Your task to perform on an android device: Open Reddit.com Image 0: 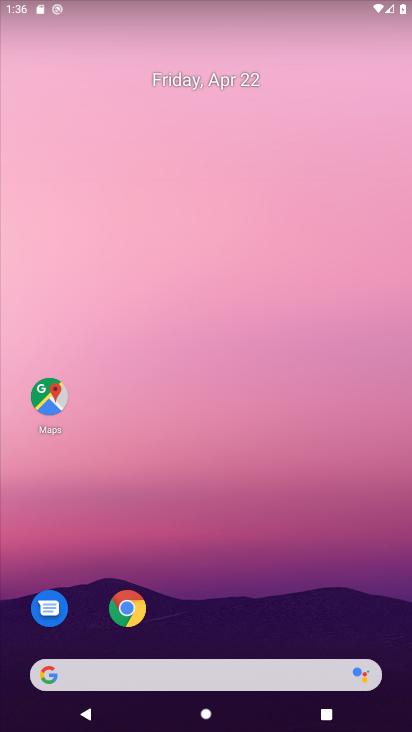
Step 0: drag from (269, 561) to (163, 61)
Your task to perform on an android device: Open Reddit.com Image 1: 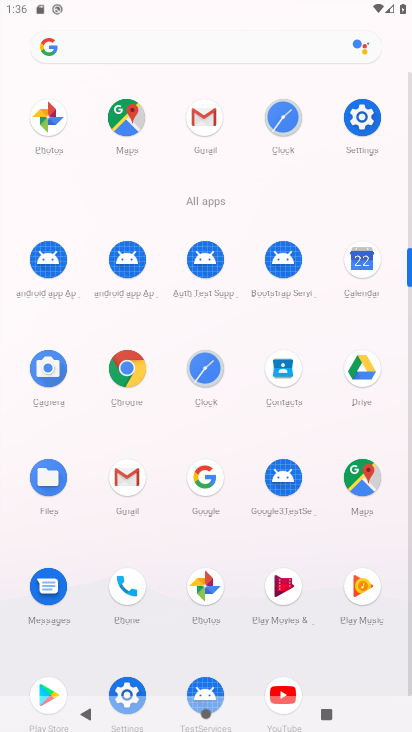
Step 1: click (127, 368)
Your task to perform on an android device: Open Reddit.com Image 2: 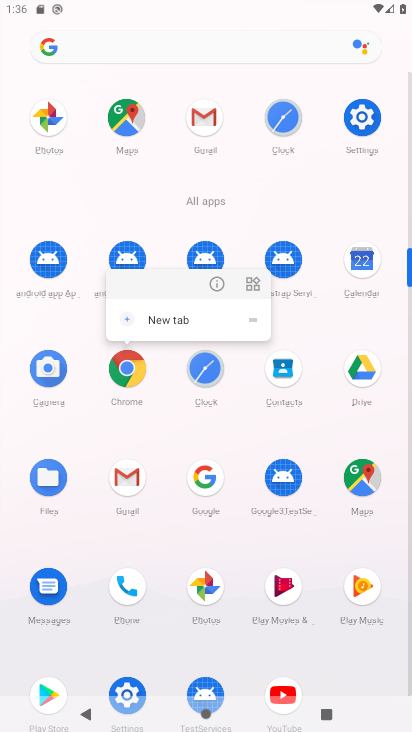
Step 2: click (126, 368)
Your task to perform on an android device: Open Reddit.com Image 3: 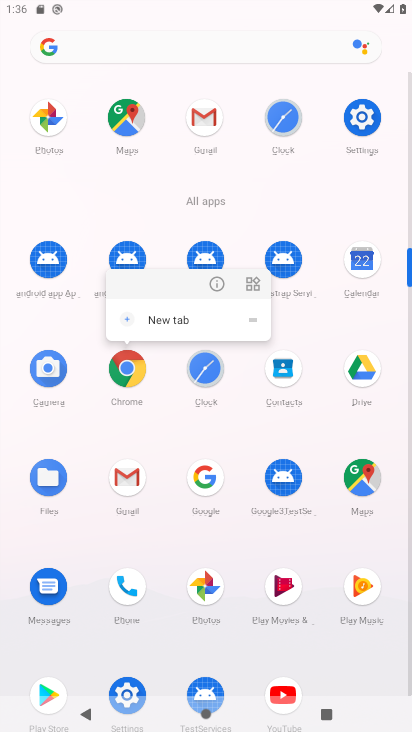
Step 3: click (127, 367)
Your task to perform on an android device: Open Reddit.com Image 4: 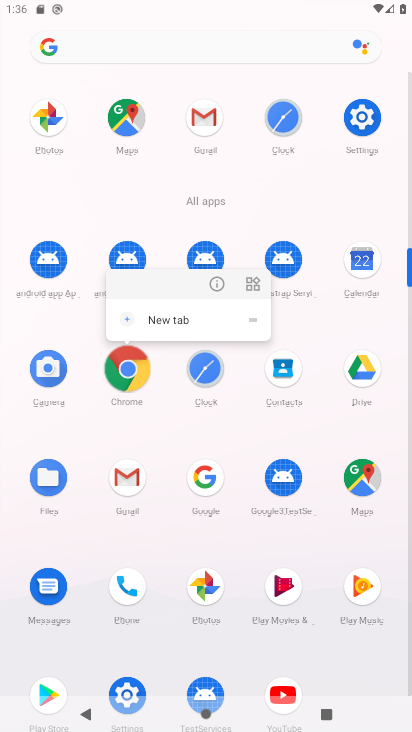
Step 4: click (127, 367)
Your task to perform on an android device: Open Reddit.com Image 5: 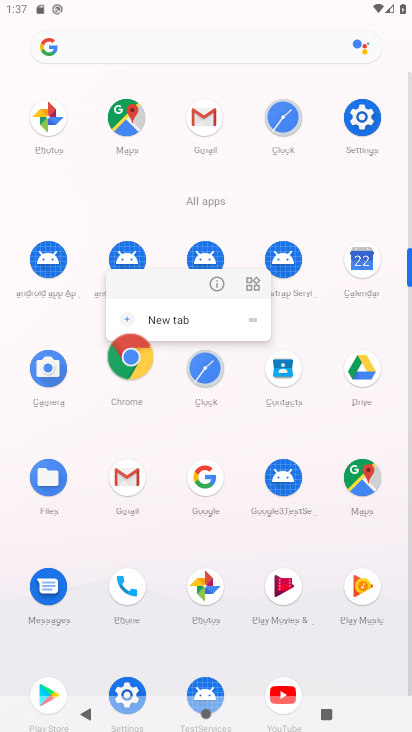
Step 5: click (132, 359)
Your task to perform on an android device: Open Reddit.com Image 6: 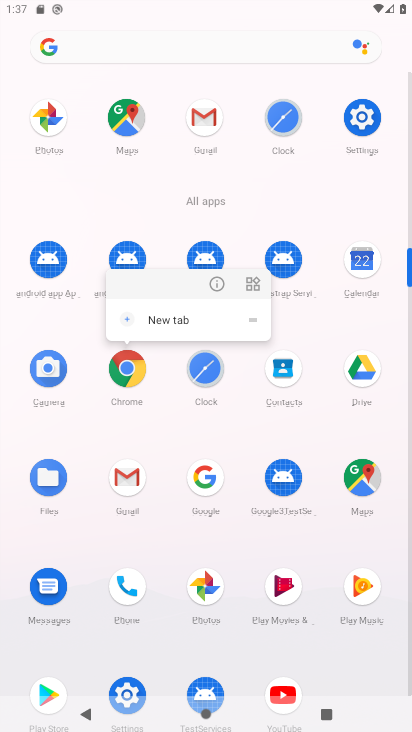
Step 6: click (128, 356)
Your task to perform on an android device: Open Reddit.com Image 7: 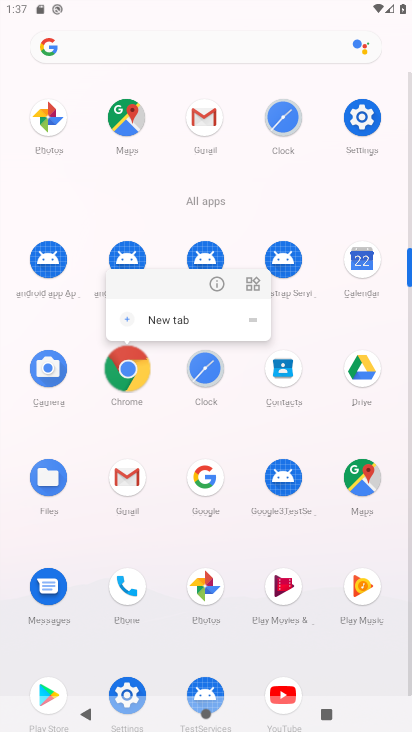
Step 7: click (129, 355)
Your task to perform on an android device: Open Reddit.com Image 8: 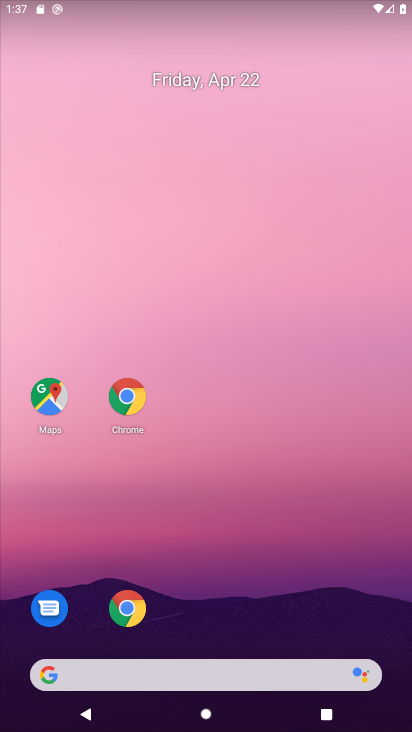
Step 8: drag from (240, 583) to (182, 11)
Your task to perform on an android device: Open Reddit.com Image 9: 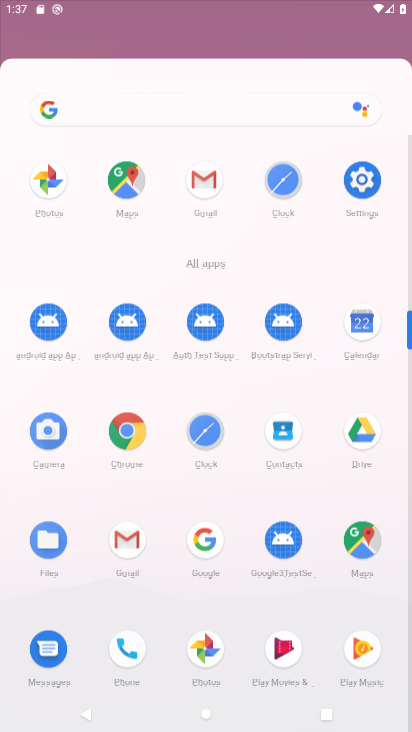
Step 9: drag from (268, 688) to (116, 64)
Your task to perform on an android device: Open Reddit.com Image 10: 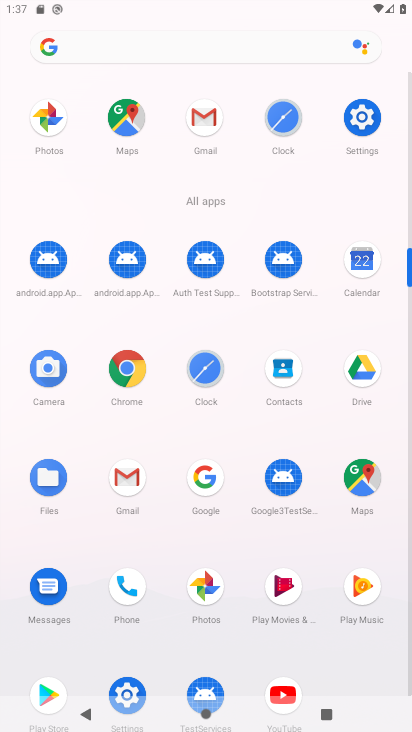
Step 10: click (117, 374)
Your task to perform on an android device: Open Reddit.com Image 11: 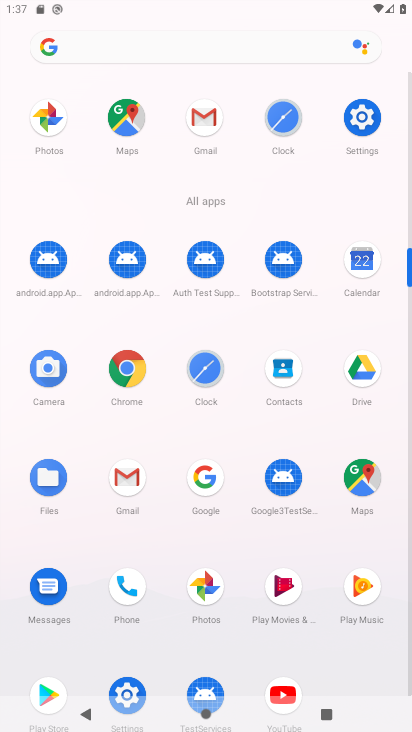
Step 11: click (117, 373)
Your task to perform on an android device: Open Reddit.com Image 12: 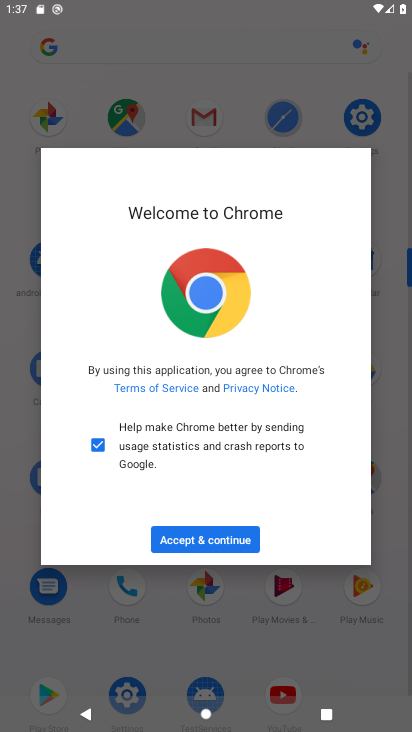
Step 12: click (208, 535)
Your task to perform on an android device: Open Reddit.com Image 13: 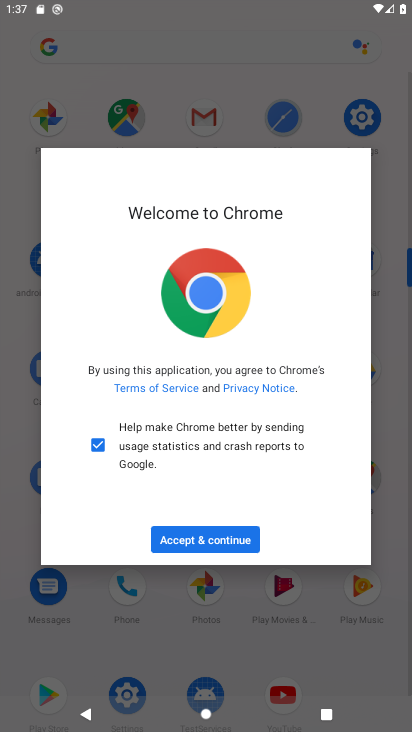
Step 13: click (209, 533)
Your task to perform on an android device: Open Reddit.com Image 14: 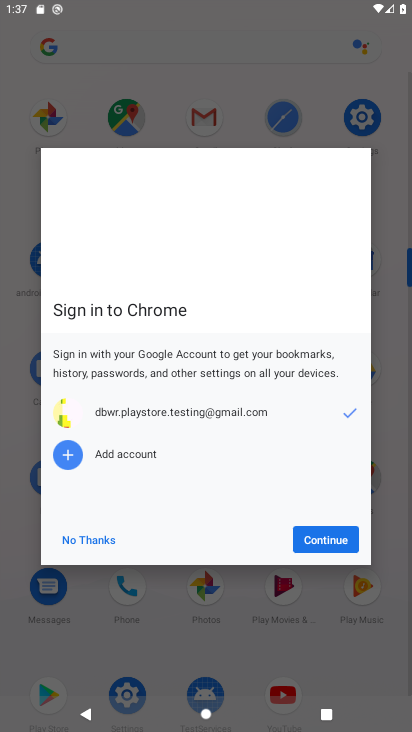
Step 14: click (209, 533)
Your task to perform on an android device: Open Reddit.com Image 15: 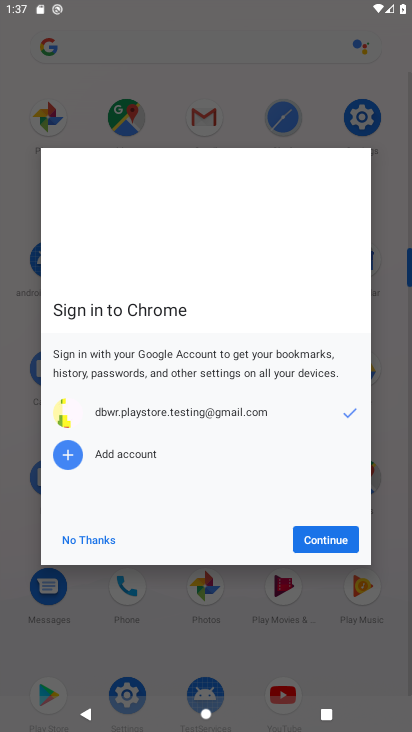
Step 15: click (331, 538)
Your task to perform on an android device: Open Reddit.com Image 16: 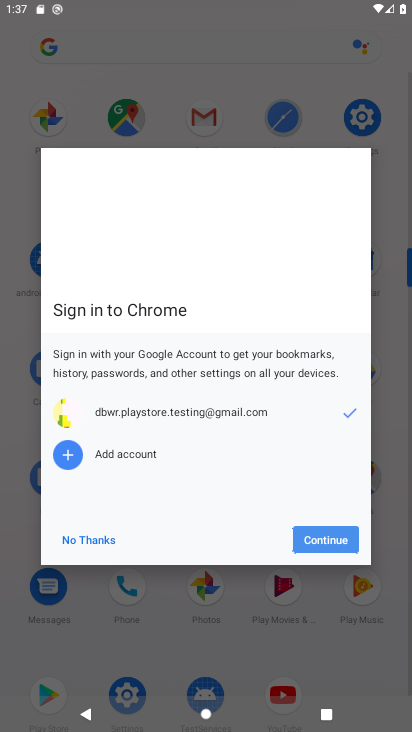
Step 16: click (317, 547)
Your task to perform on an android device: Open Reddit.com Image 17: 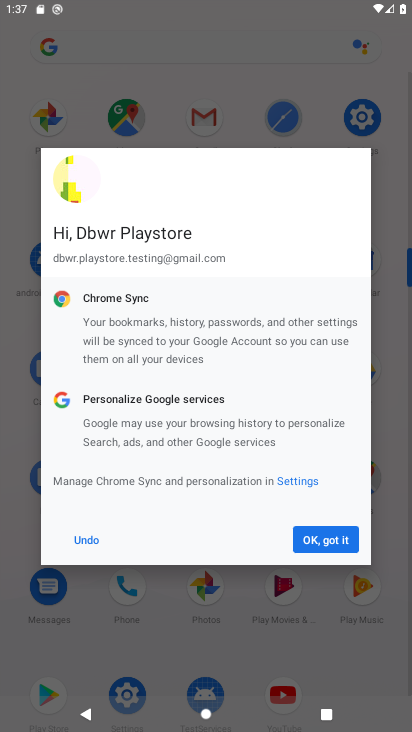
Step 17: click (326, 532)
Your task to perform on an android device: Open Reddit.com Image 18: 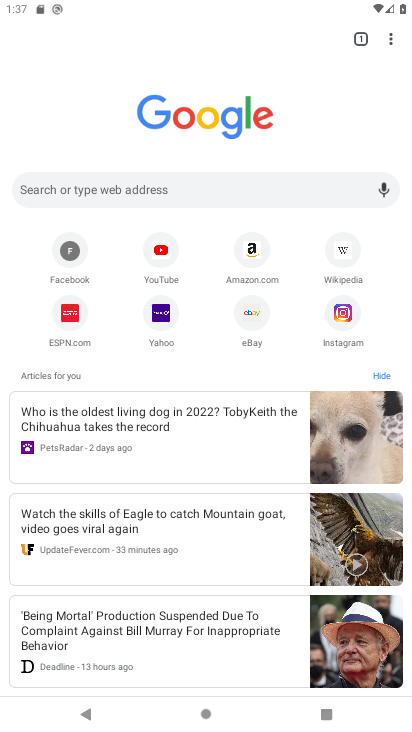
Step 18: click (93, 181)
Your task to perform on an android device: Open Reddit.com Image 19: 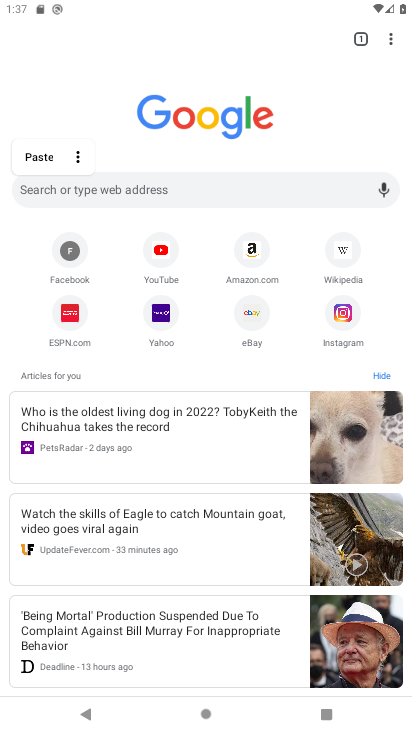
Step 19: type "www. reddit.com"
Your task to perform on an android device: Open Reddit.com Image 20: 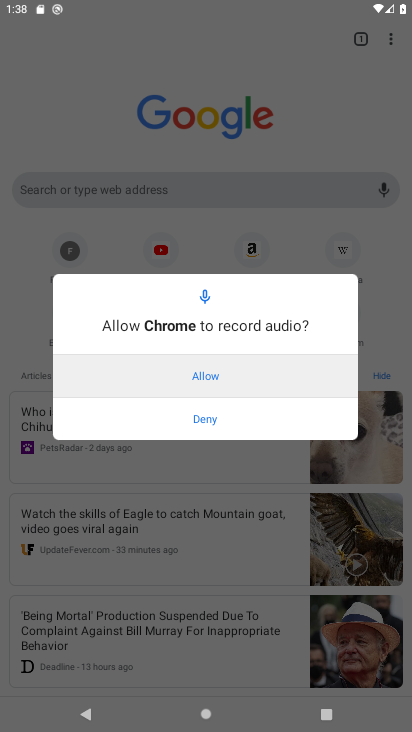
Step 20: click (227, 370)
Your task to perform on an android device: Open Reddit.com Image 21: 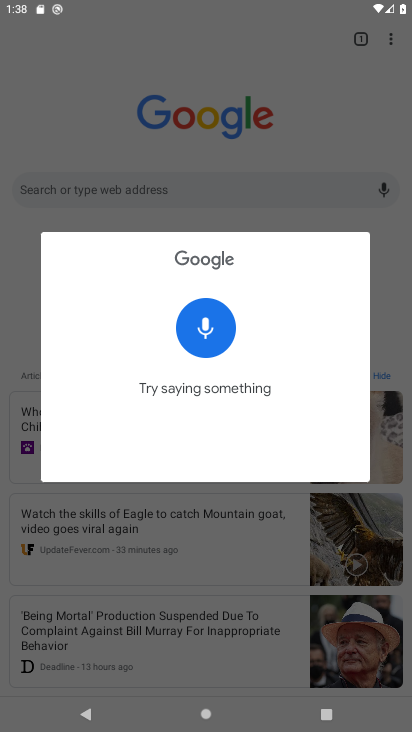
Step 21: click (54, 185)
Your task to perform on an android device: Open Reddit.com Image 22: 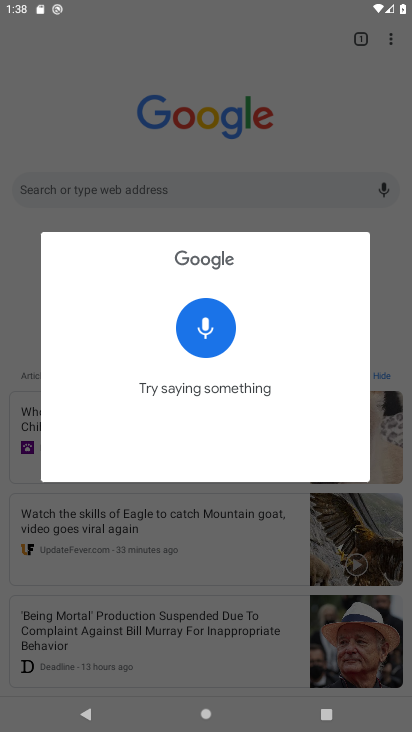
Step 22: click (50, 195)
Your task to perform on an android device: Open Reddit.com Image 23: 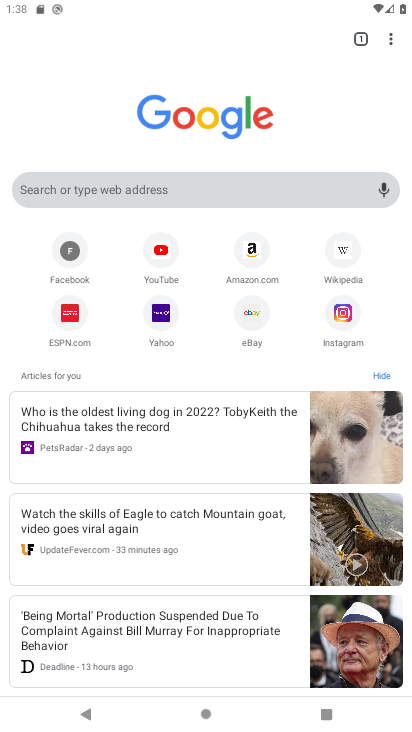
Step 23: click (42, 191)
Your task to perform on an android device: Open Reddit.com Image 24: 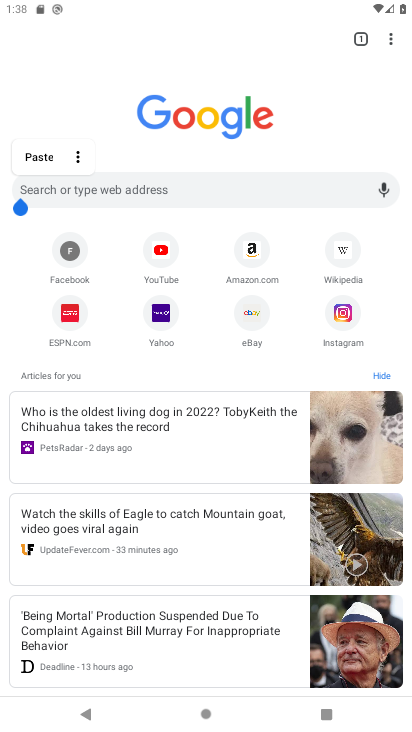
Step 24: click (70, 183)
Your task to perform on an android device: Open Reddit.com Image 25: 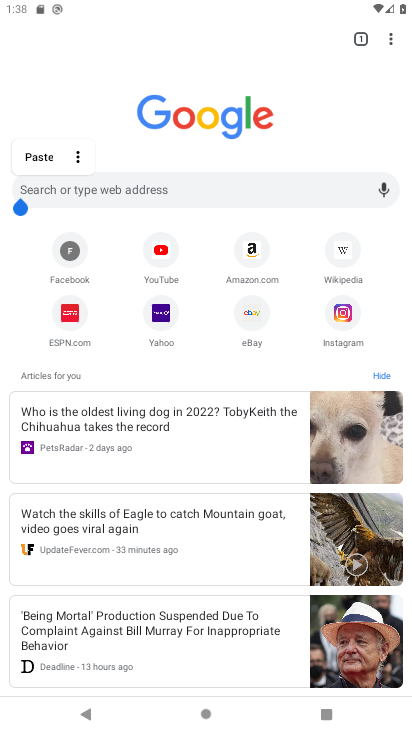
Step 25: click (112, 195)
Your task to perform on an android device: Open Reddit.com Image 26: 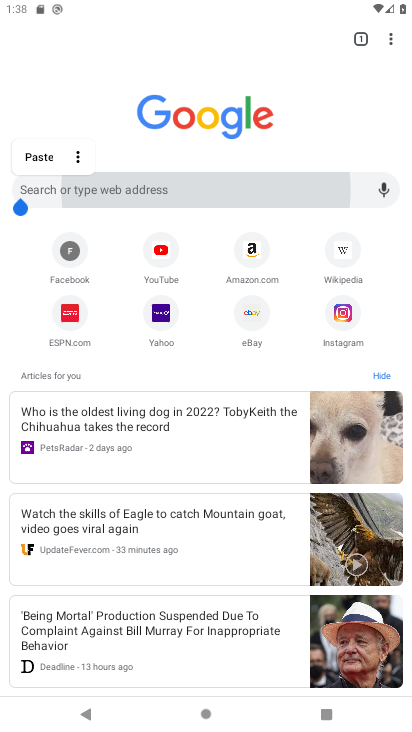
Step 26: click (113, 196)
Your task to perform on an android device: Open Reddit.com Image 27: 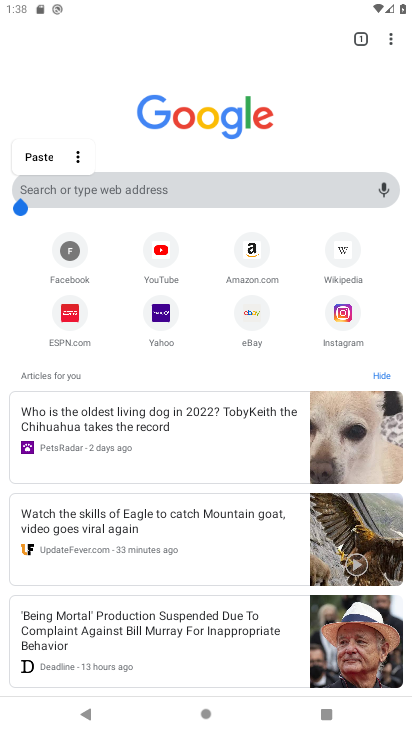
Step 27: click (125, 188)
Your task to perform on an android device: Open Reddit.com Image 28: 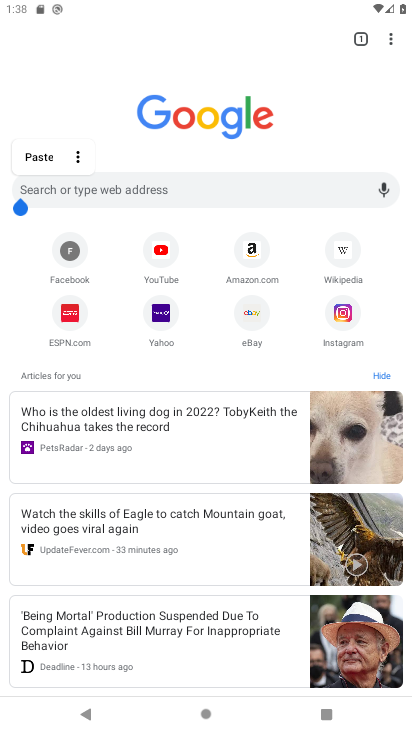
Step 28: click (78, 193)
Your task to perform on an android device: Open Reddit.com Image 29: 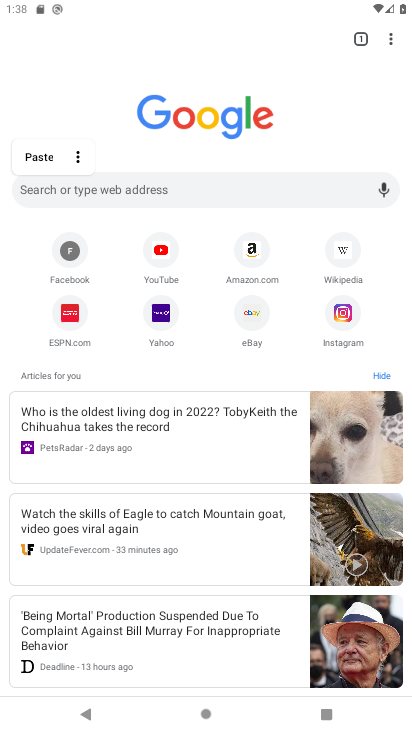
Step 29: click (70, 203)
Your task to perform on an android device: Open Reddit.com Image 30: 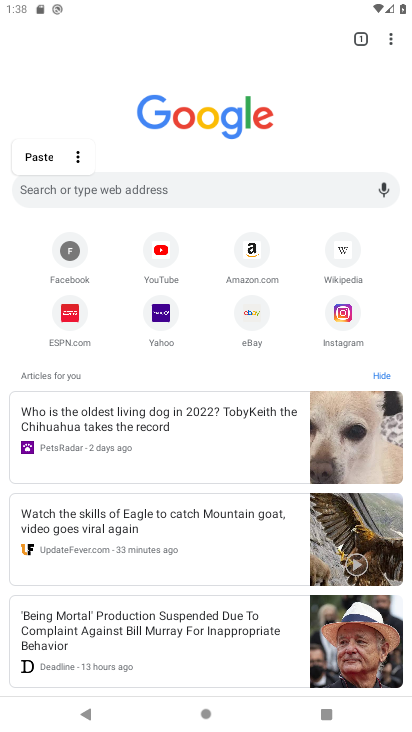
Step 30: click (70, 203)
Your task to perform on an android device: Open Reddit.com Image 31: 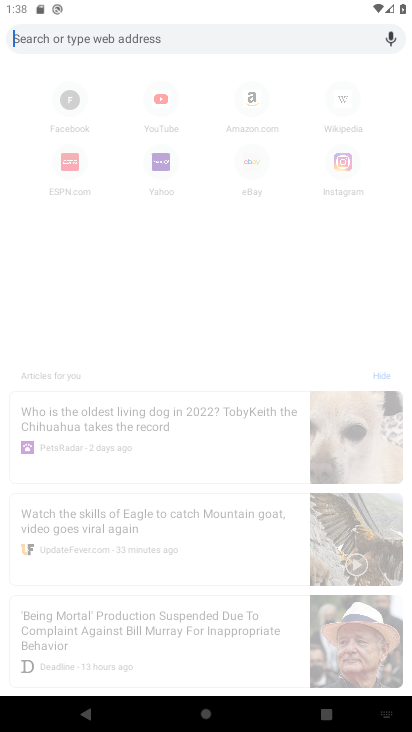
Step 31: type "www.reddit.com"
Your task to perform on an android device: Open Reddit.com Image 32: 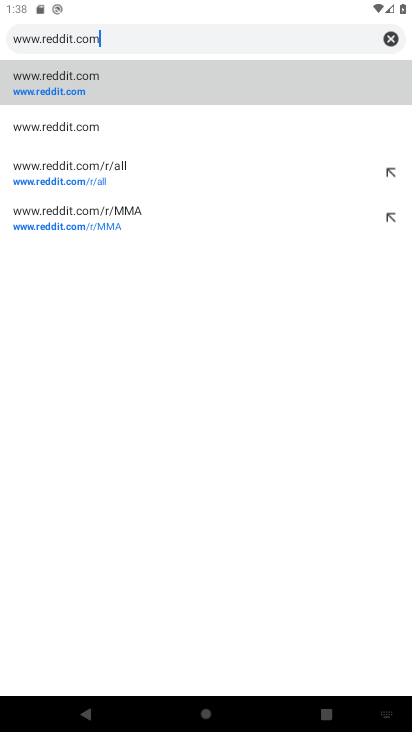
Step 32: click (37, 76)
Your task to perform on an android device: Open Reddit.com Image 33: 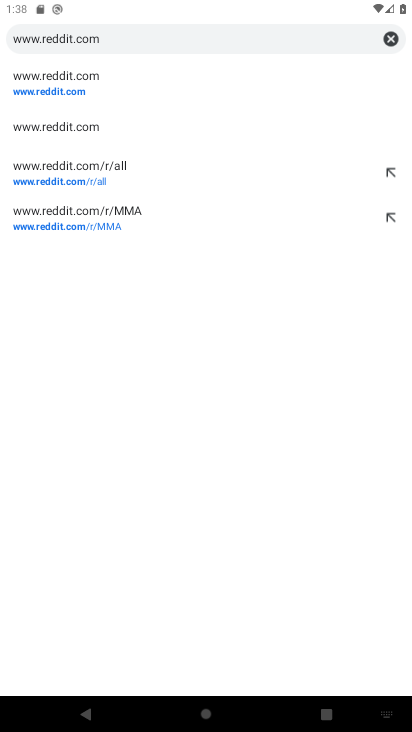
Step 33: click (62, 85)
Your task to perform on an android device: Open Reddit.com Image 34: 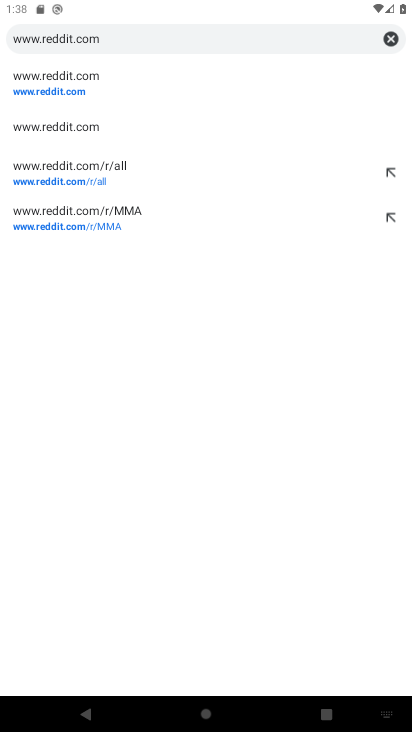
Step 34: click (43, 91)
Your task to perform on an android device: Open Reddit.com Image 35: 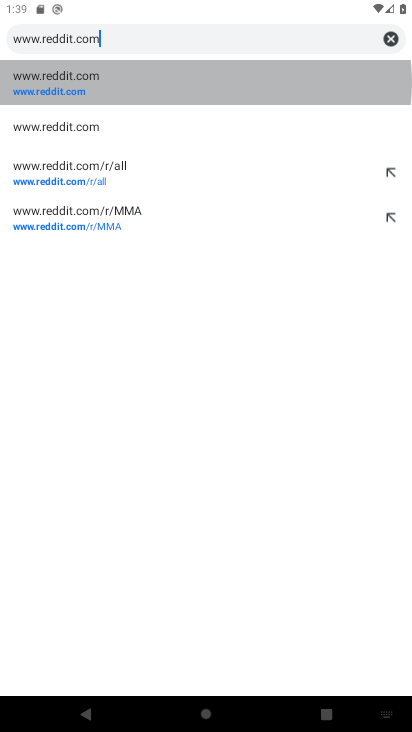
Step 35: click (42, 90)
Your task to perform on an android device: Open Reddit.com Image 36: 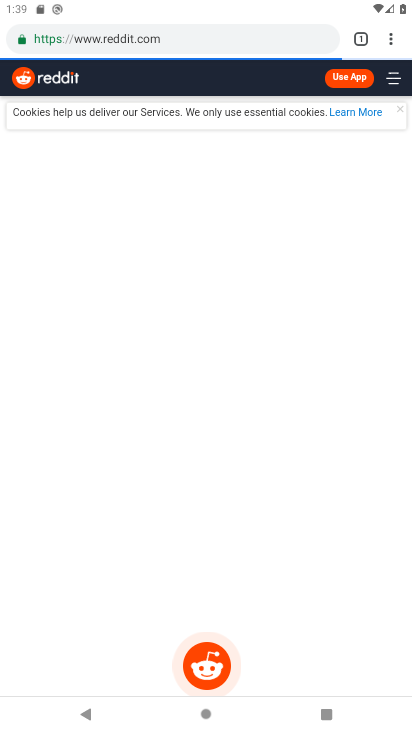
Step 36: task complete